Your task to perform on an android device: What's the weather going to be tomorrow? Image 0: 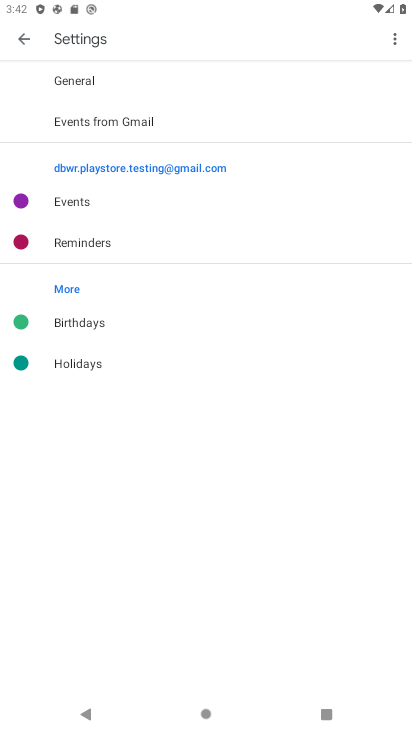
Step 0: press home button
Your task to perform on an android device: What's the weather going to be tomorrow? Image 1: 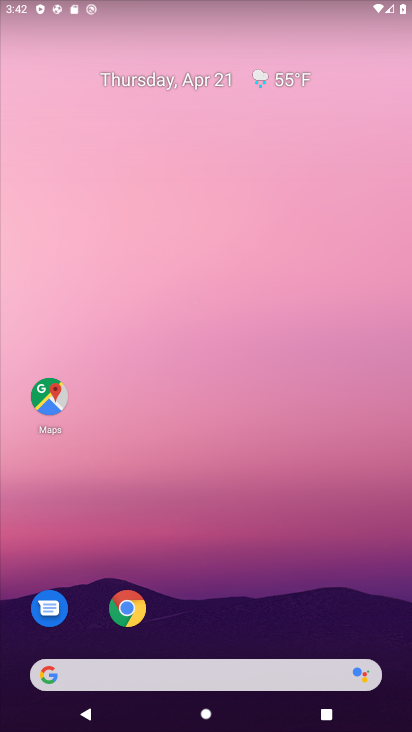
Step 1: drag from (292, 630) to (355, 230)
Your task to perform on an android device: What's the weather going to be tomorrow? Image 2: 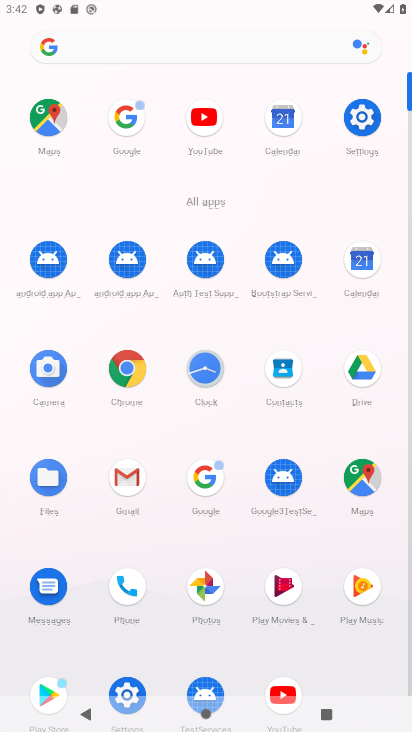
Step 2: click (209, 471)
Your task to perform on an android device: What's the weather going to be tomorrow? Image 3: 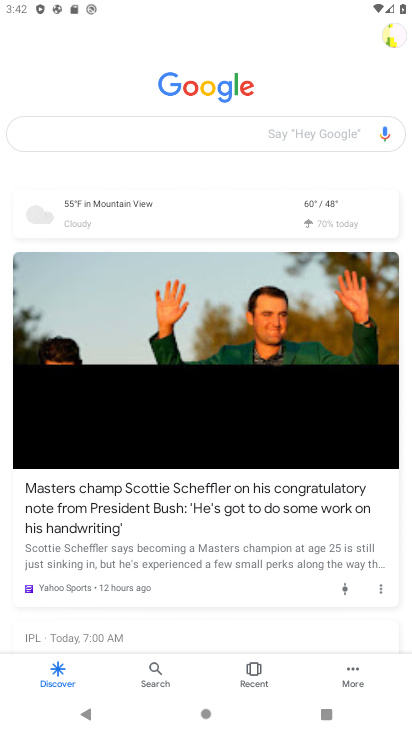
Step 3: click (295, 122)
Your task to perform on an android device: What's the weather going to be tomorrow? Image 4: 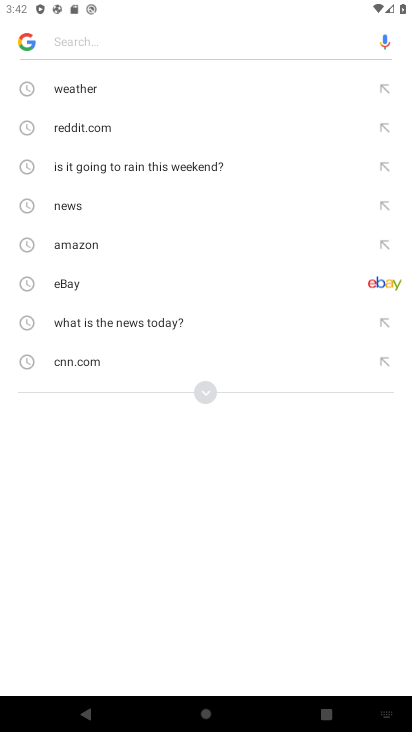
Step 4: type "weather tommorrow"
Your task to perform on an android device: What's the weather going to be tomorrow? Image 5: 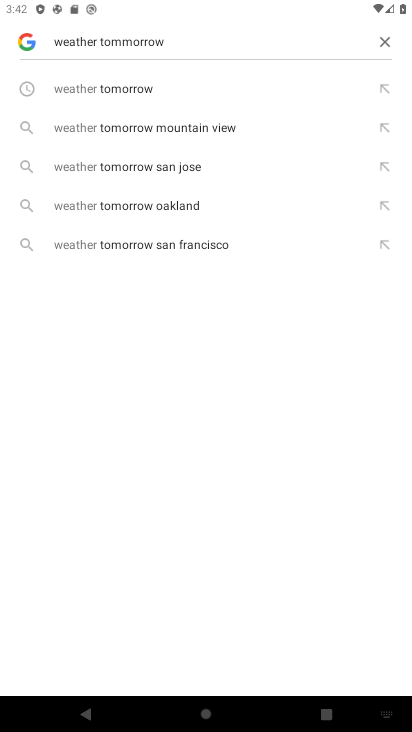
Step 5: click (281, 87)
Your task to perform on an android device: What's the weather going to be tomorrow? Image 6: 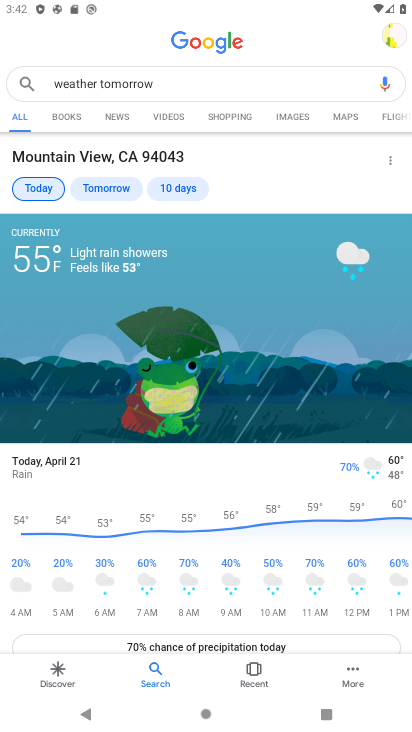
Step 6: task complete